Your task to perform on an android device: Open Google Image 0: 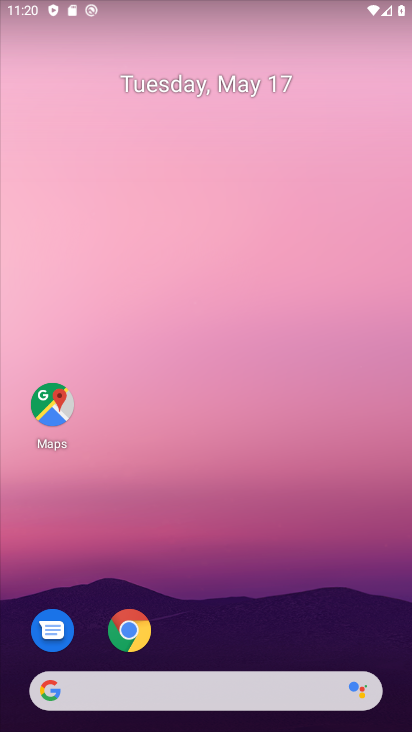
Step 0: drag from (330, 591) to (314, 188)
Your task to perform on an android device: Open Google Image 1: 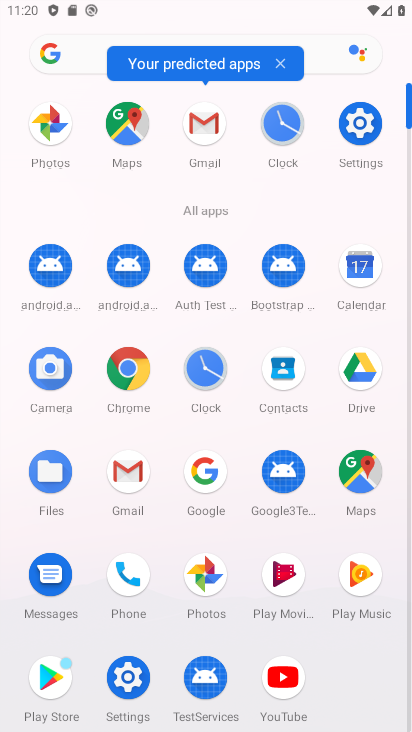
Step 1: click (212, 487)
Your task to perform on an android device: Open Google Image 2: 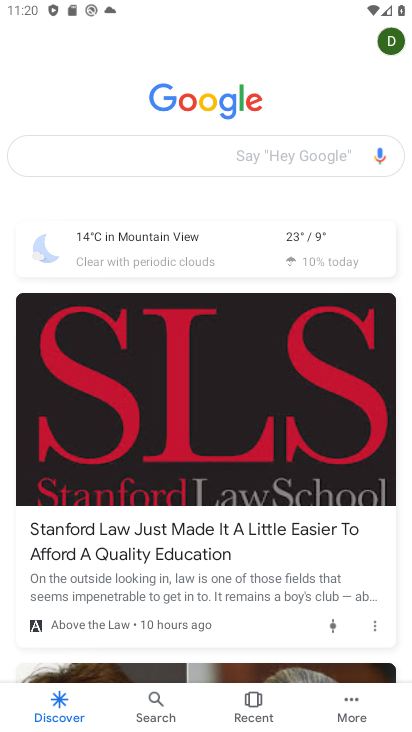
Step 2: task complete